Your task to perform on an android device: Open Reddit.com Image 0: 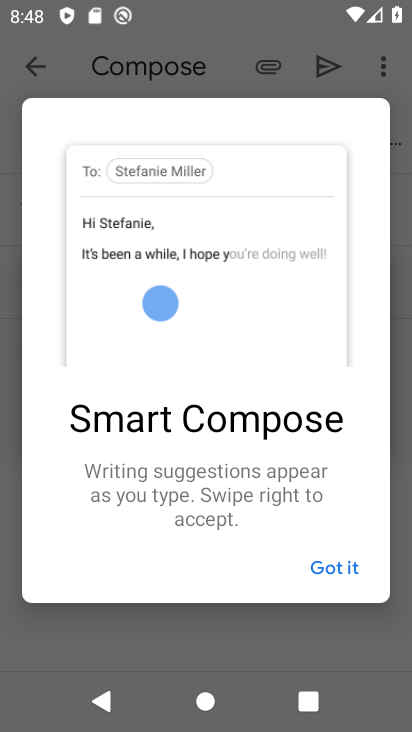
Step 0: press home button
Your task to perform on an android device: Open Reddit.com Image 1: 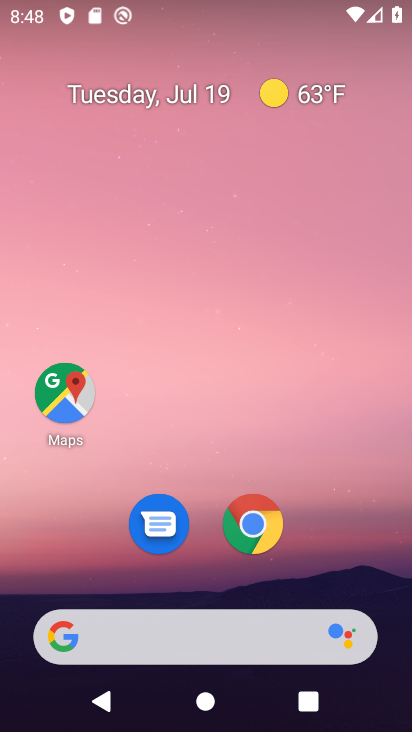
Step 1: click (255, 522)
Your task to perform on an android device: Open Reddit.com Image 2: 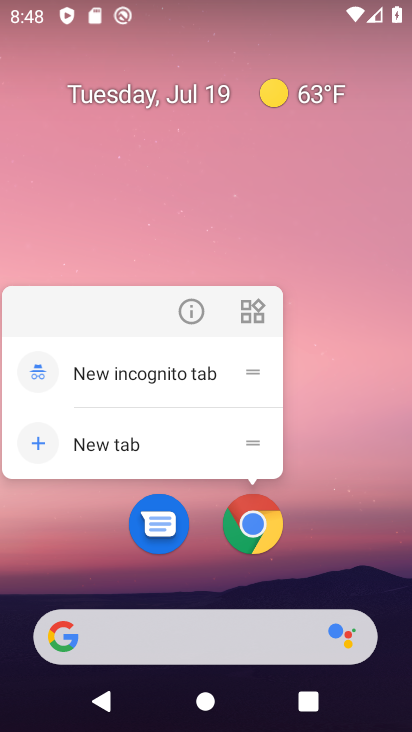
Step 2: click (254, 524)
Your task to perform on an android device: Open Reddit.com Image 3: 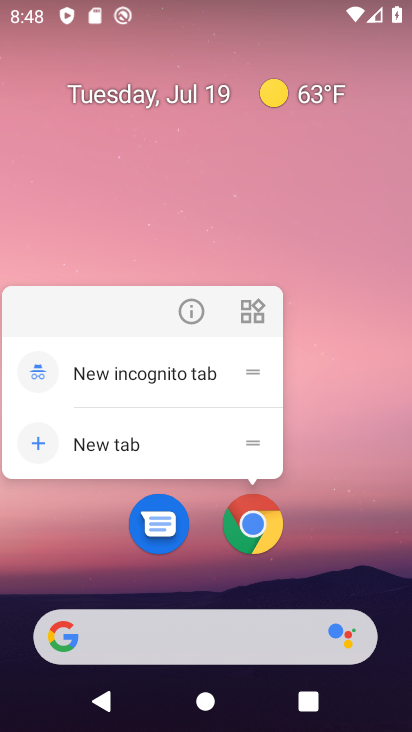
Step 3: click (253, 534)
Your task to perform on an android device: Open Reddit.com Image 4: 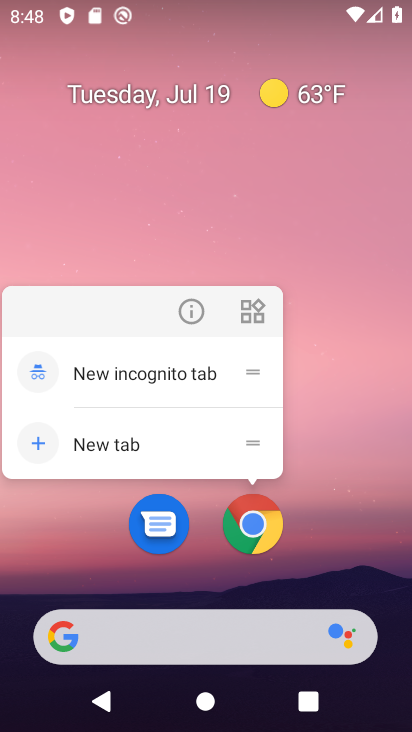
Step 4: click (259, 524)
Your task to perform on an android device: Open Reddit.com Image 5: 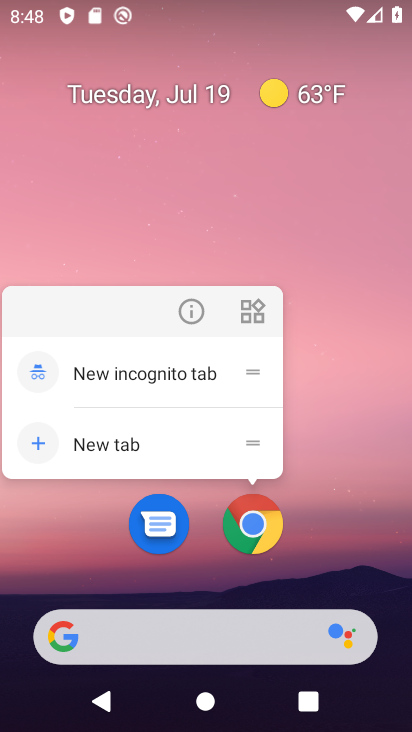
Step 5: click (257, 520)
Your task to perform on an android device: Open Reddit.com Image 6: 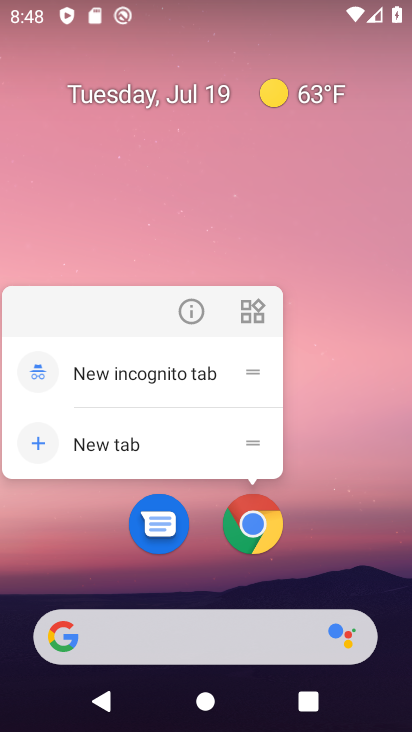
Step 6: click (257, 520)
Your task to perform on an android device: Open Reddit.com Image 7: 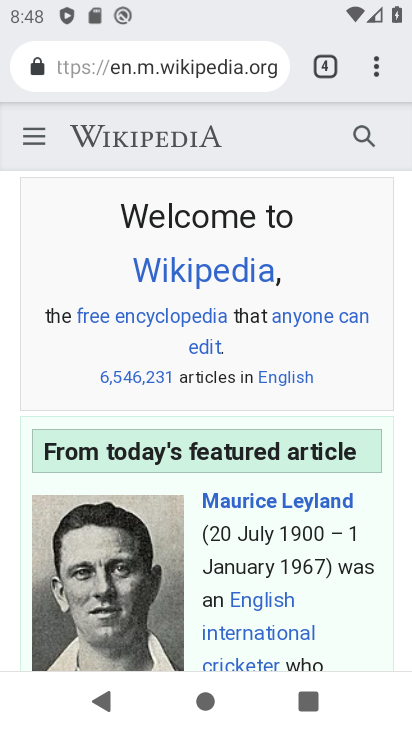
Step 7: drag from (378, 59) to (245, 134)
Your task to perform on an android device: Open Reddit.com Image 8: 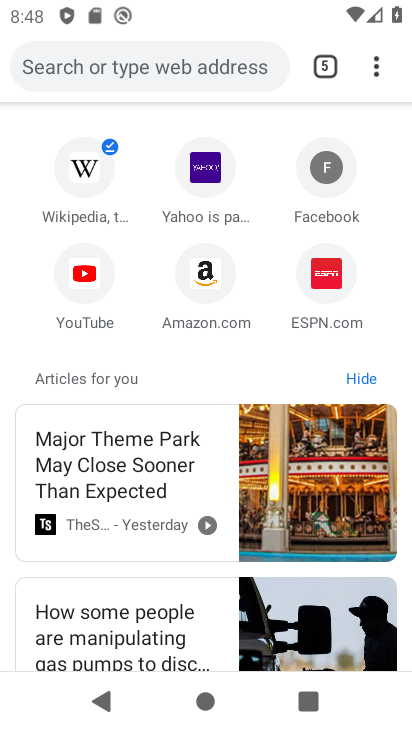
Step 8: click (145, 64)
Your task to perform on an android device: Open Reddit.com Image 9: 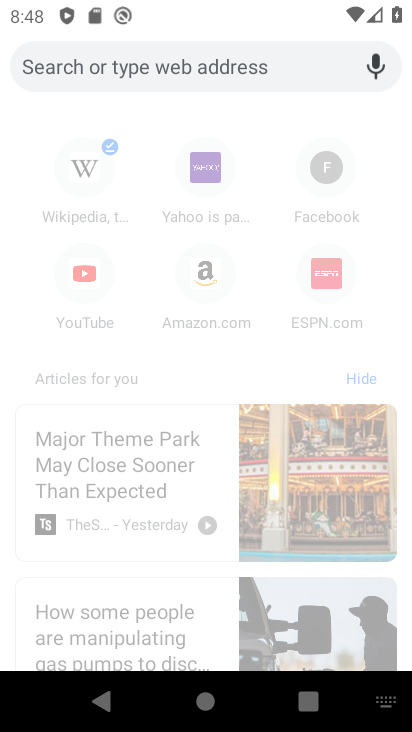
Step 9: type "reddit.com"
Your task to perform on an android device: Open Reddit.com Image 10: 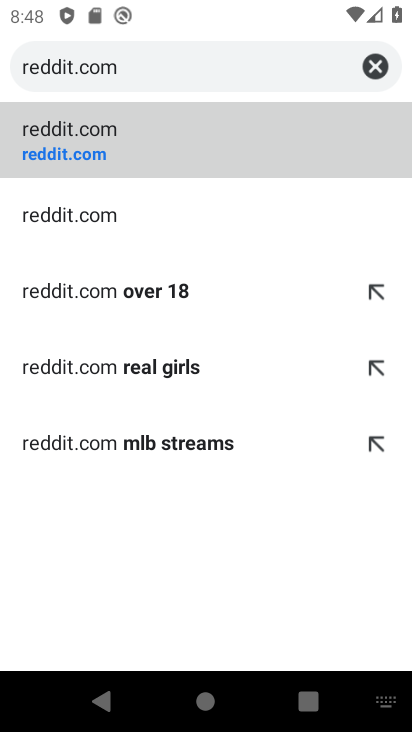
Step 10: click (81, 145)
Your task to perform on an android device: Open Reddit.com Image 11: 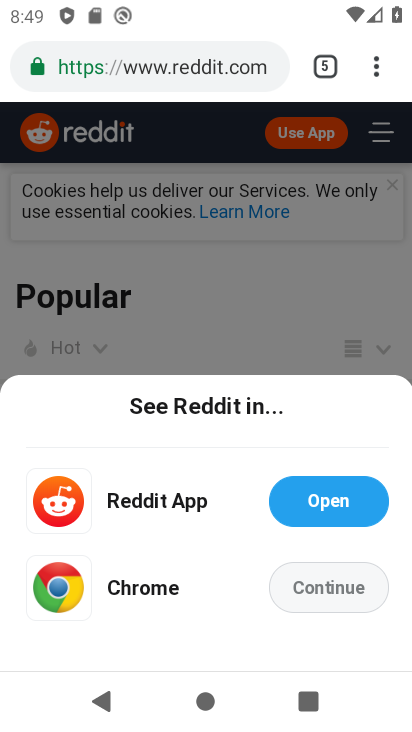
Step 11: task complete